Your task to perform on an android device: turn on sleep mode Image 0: 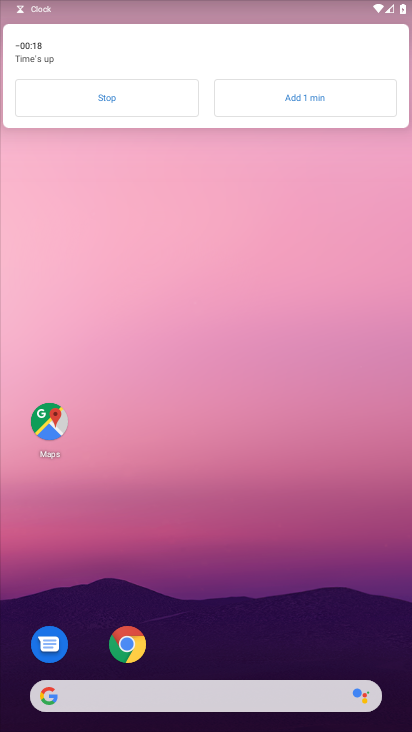
Step 0: drag from (316, 639) to (378, 227)
Your task to perform on an android device: turn on sleep mode Image 1: 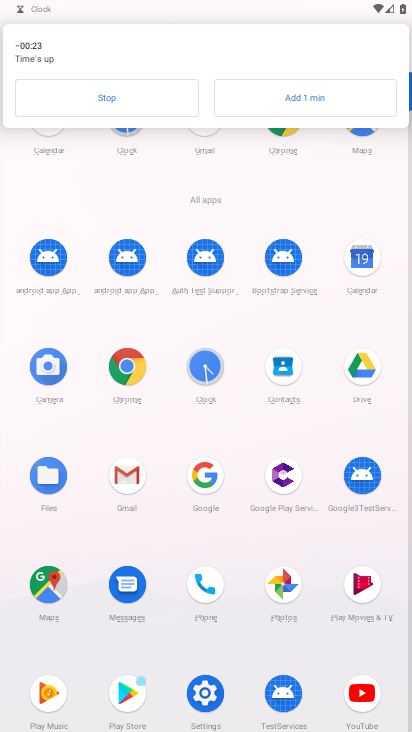
Step 1: click (212, 697)
Your task to perform on an android device: turn on sleep mode Image 2: 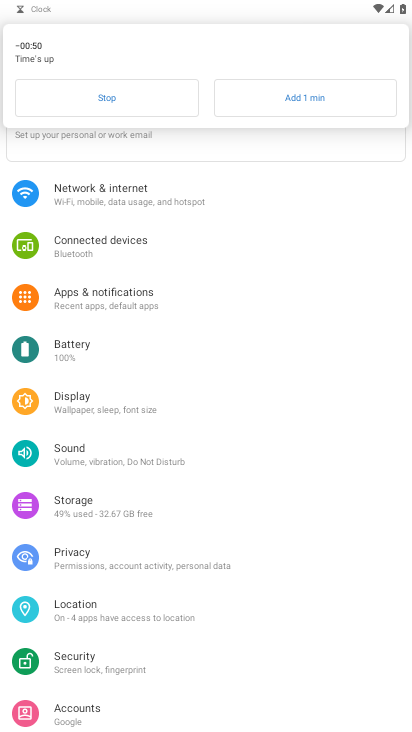
Step 2: click (103, 409)
Your task to perform on an android device: turn on sleep mode Image 3: 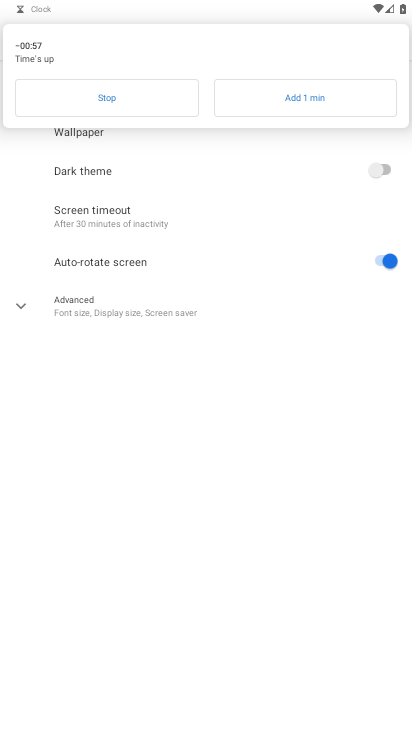
Step 3: click (140, 108)
Your task to perform on an android device: turn on sleep mode Image 4: 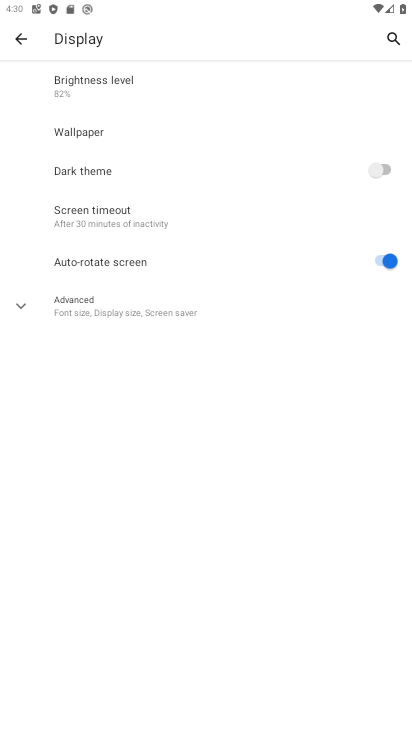
Step 4: task complete